Your task to perform on an android device: Find coffee shops on Maps Image 0: 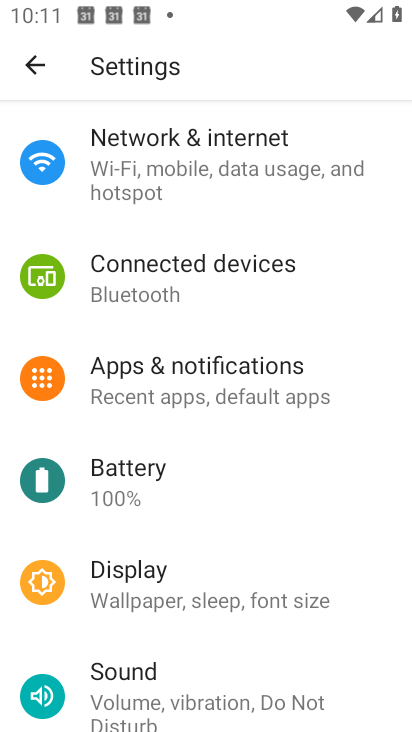
Step 0: press home button
Your task to perform on an android device: Find coffee shops on Maps Image 1: 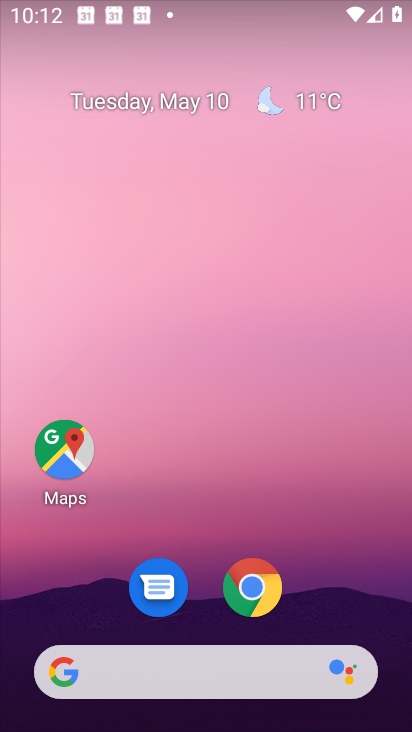
Step 1: drag from (375, 597) to (344, 209)
Your task to perform on an android device: Find coffee shops on Maps Image 2: 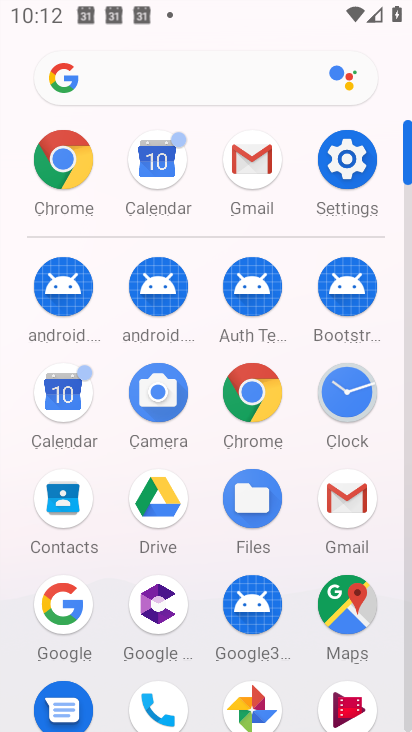
Step 2: click (331, 598)
Your task to perform on an android device: Find coffee shops on Maps Image 3: 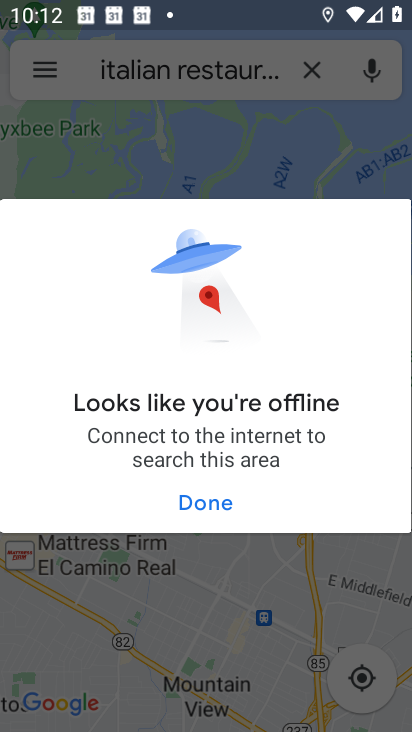
Step 3: click (177, 95)
Your task to perform on an android device: Find coffee shops on Maps Image 4: 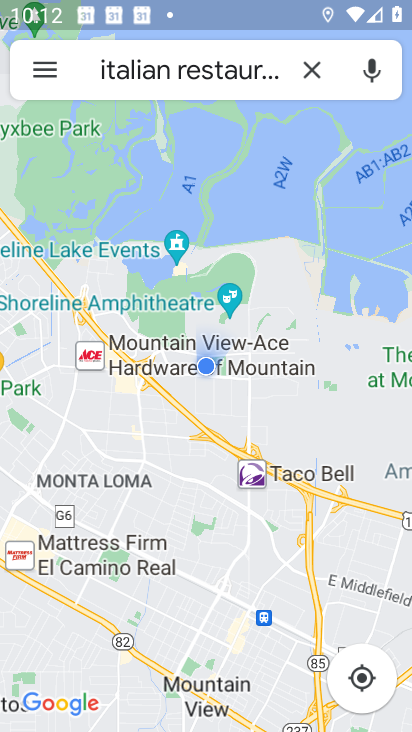
Step 4: click (307, 71)
Your task to perform on an android device: Find coffee shops on Maps Image 5: 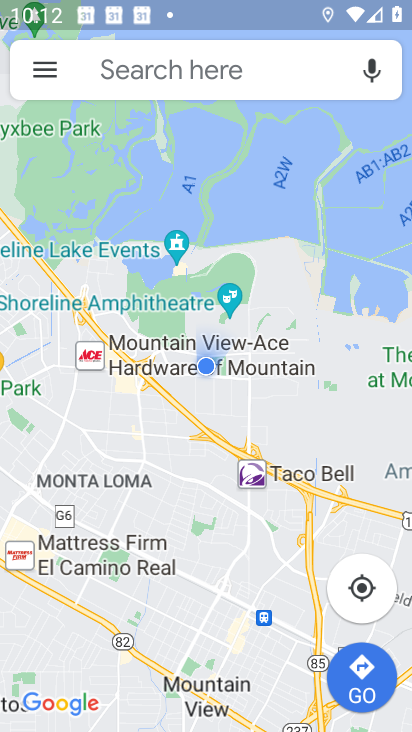
Step 5: click (202, 68)
Your task to perform on an android device: Find coffee shops on Maps Image 6: 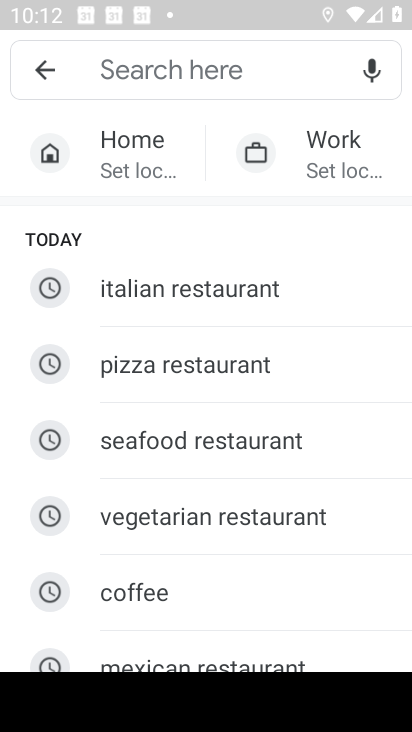
Step 6: type "coffee shops"
Your task to perform on an android device: Find coffee shops on Maps Image 7: 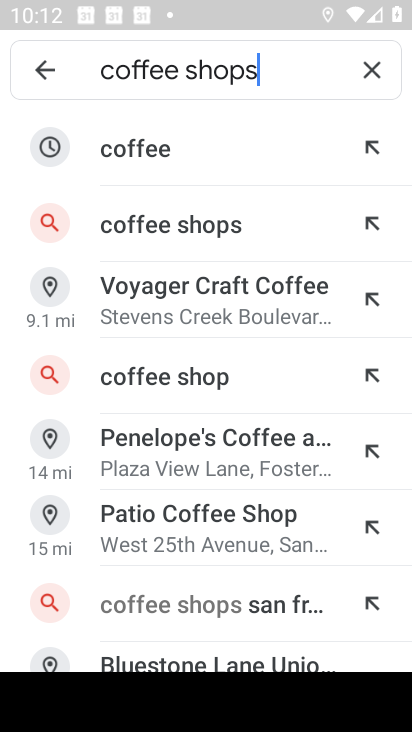
Step 7: click (198, 222)
Your task to perform on an android device: Find coffee shops on Maps Image 8: 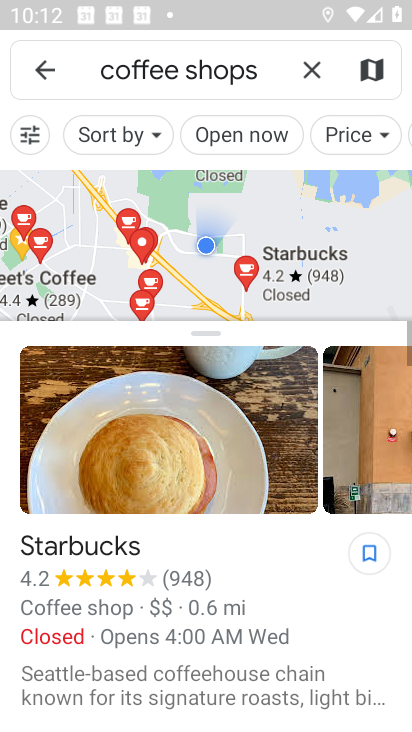
Step 8: task complete